Your task to perform on an android device: delete browsing data in the chrome app Image 0: 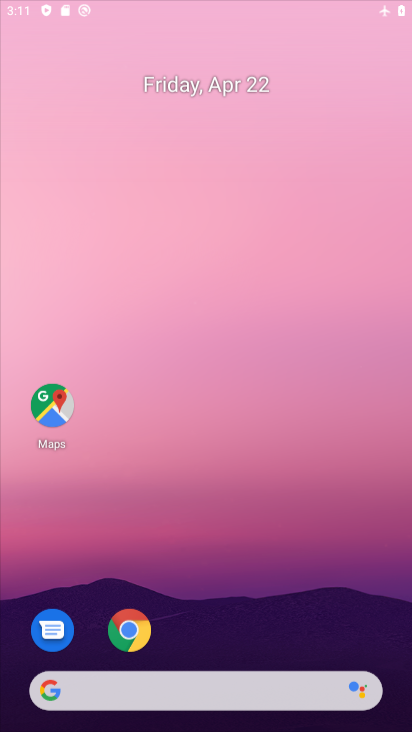
Step 0: click (262, 375)
Your task to perform on an android device: delete browsing data in the chrome app Image 1: 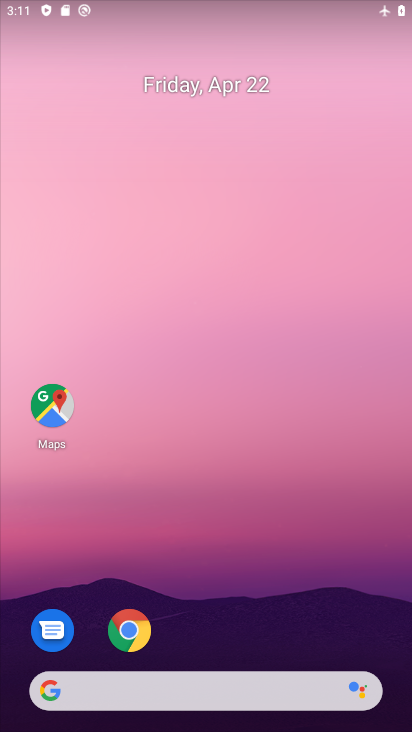
Step 1: click (131, 634)
Your task to perform on an android device: delete browsing data in the chrome app Image 2: 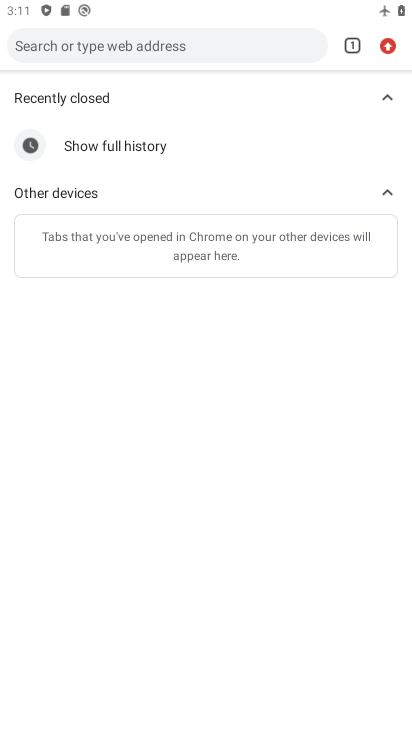
Step 2: click (392, 39)
Your task to perform on an android device: delete browsing data in the chrome app Image 3: 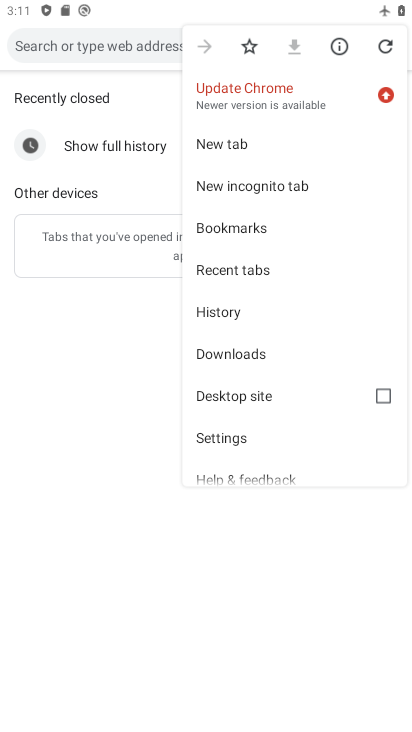
Step 3: click (233, 308)
Your task to perform on an android device: delete browsing data in the chrome app Image 4: 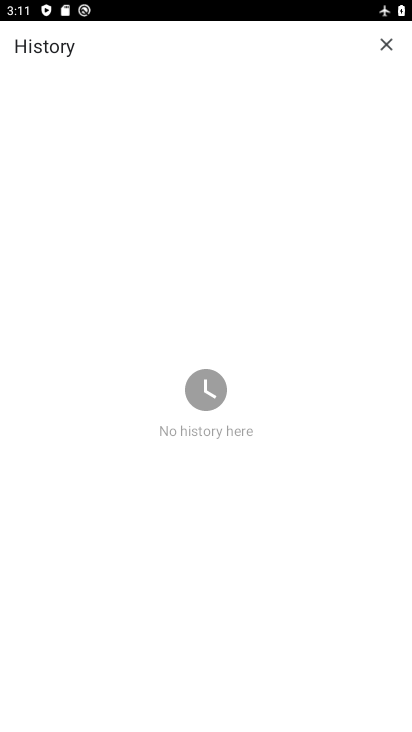
Step 4: task complete